Your task to perform on an android device: Turn off the flashlight Image 0: 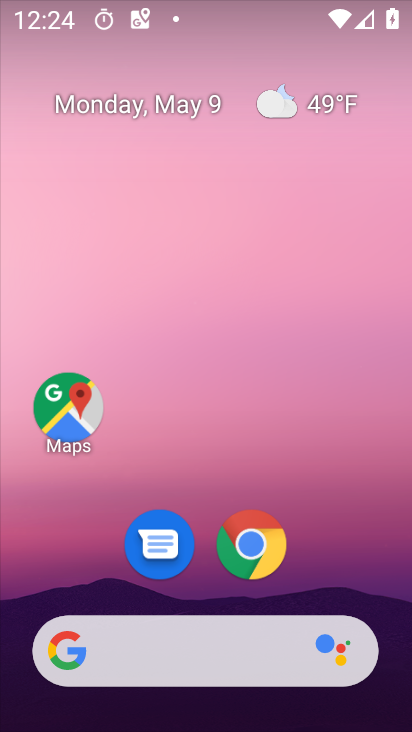
Step 0: drag from (336, 542) to (360, 115)
Your task to perform on an android device: Turn off the flashlight Image 1: 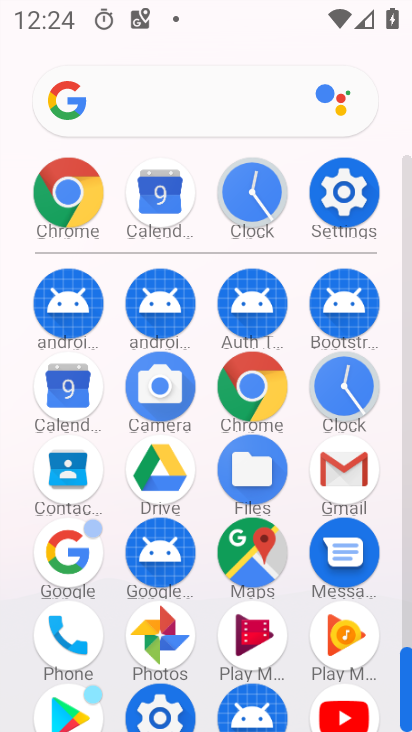
Step 1: click (350, 185)
Your task to perform on an android device: Turn off the flashlight Image 2: 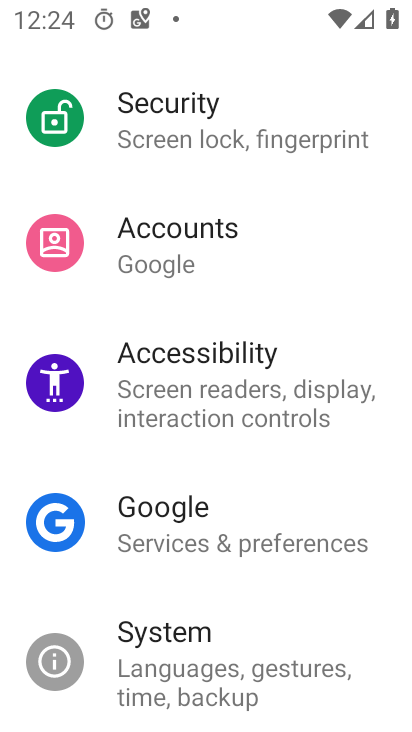
Step 2: task complete